Your task to perform on an android device: open app "Google Docs" (install if not already installed) Image 0: 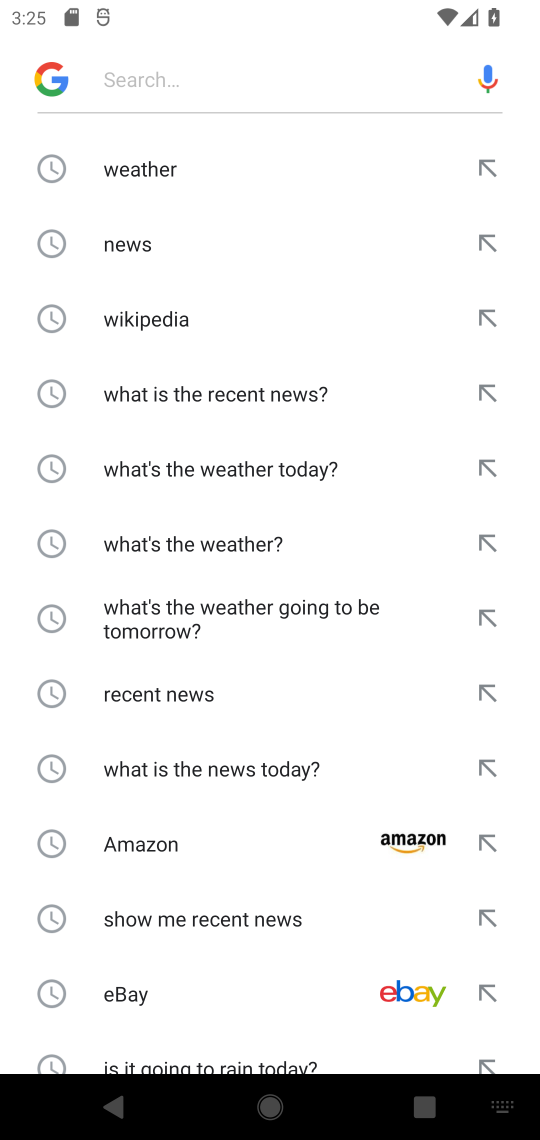
Step 0: press home button
Your task to perform on an android device: open app "Google Docs" (install if not already installed) Image 1: 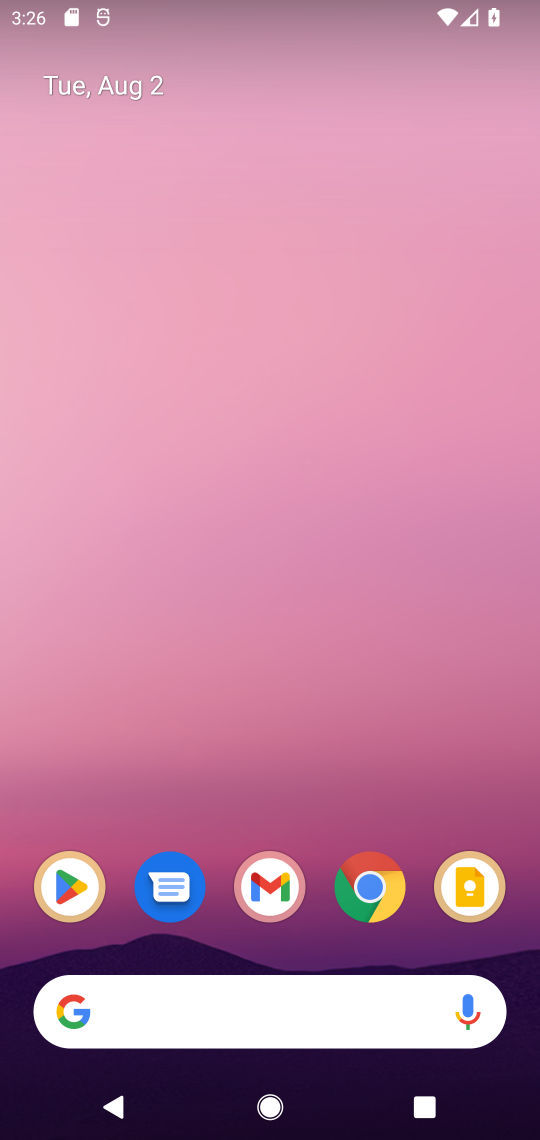
Step 1: click (46, 888)
Your task to perform on an android device: open app "Google Docs" (install if not already installed) Image 2: 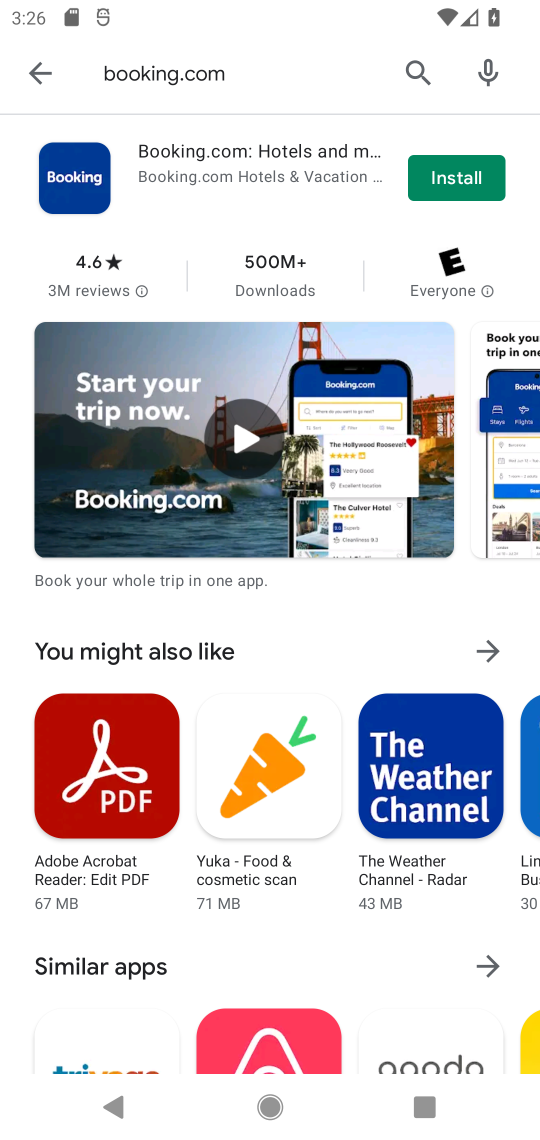
Step 2: click (43, 70)
Your task to perform on an android device: open app "Google Docs" (install if not already installed) Image 3: 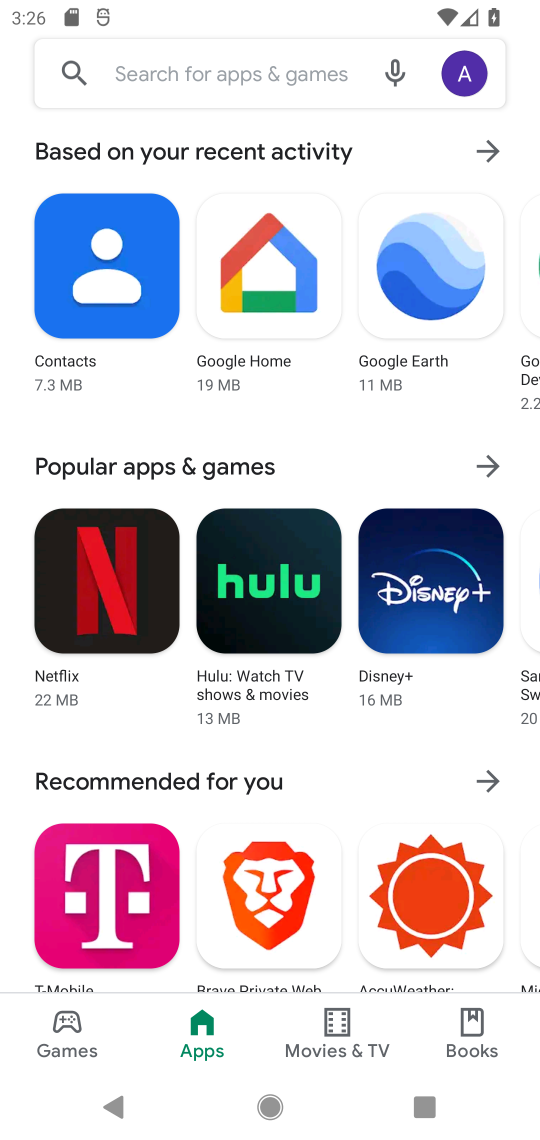
Step 3: click (154, 80)
Your task to perform on an android device: open app "Google Docs" (install if not already installed) Image 4: 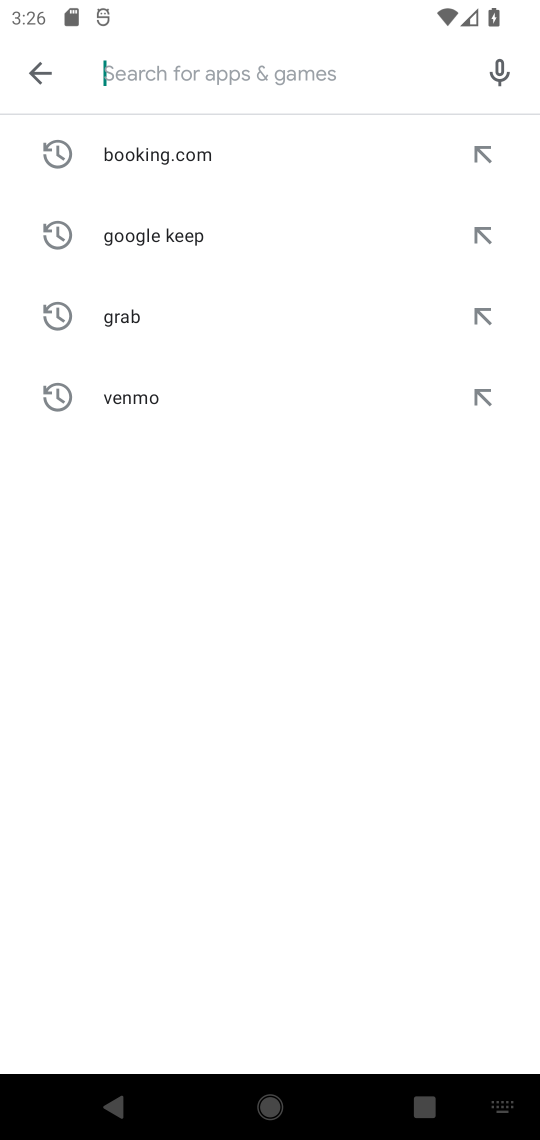
Step 4: type "Google Docs"
Your task to perform on an android device: open app "Google Docs" (install if not already installed) Image 5: 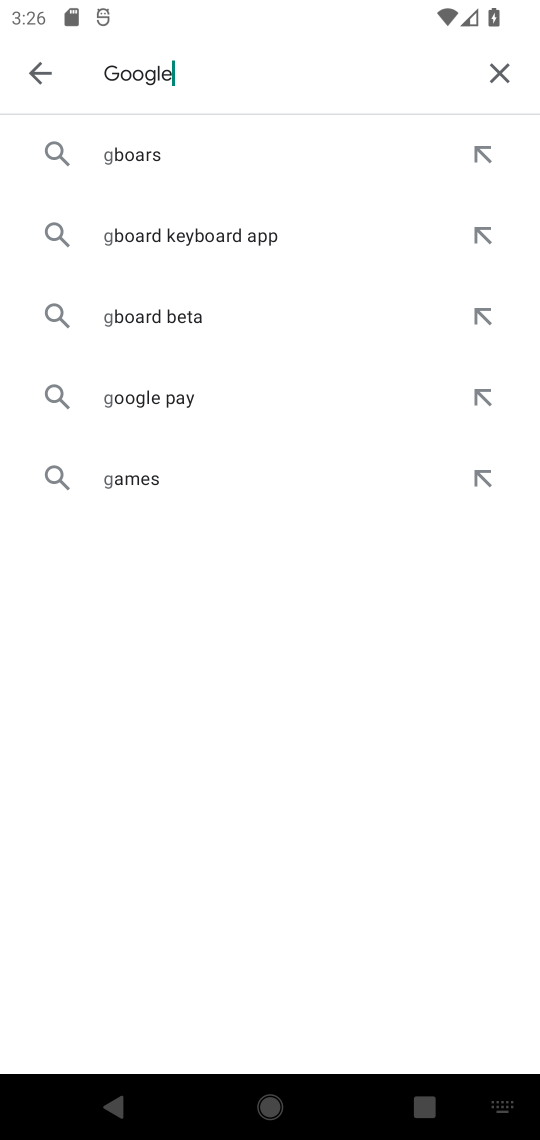
Step 5: type ""
Your task to perform on an android device: open app "Google Docs" (install if not already installed) Image 6: 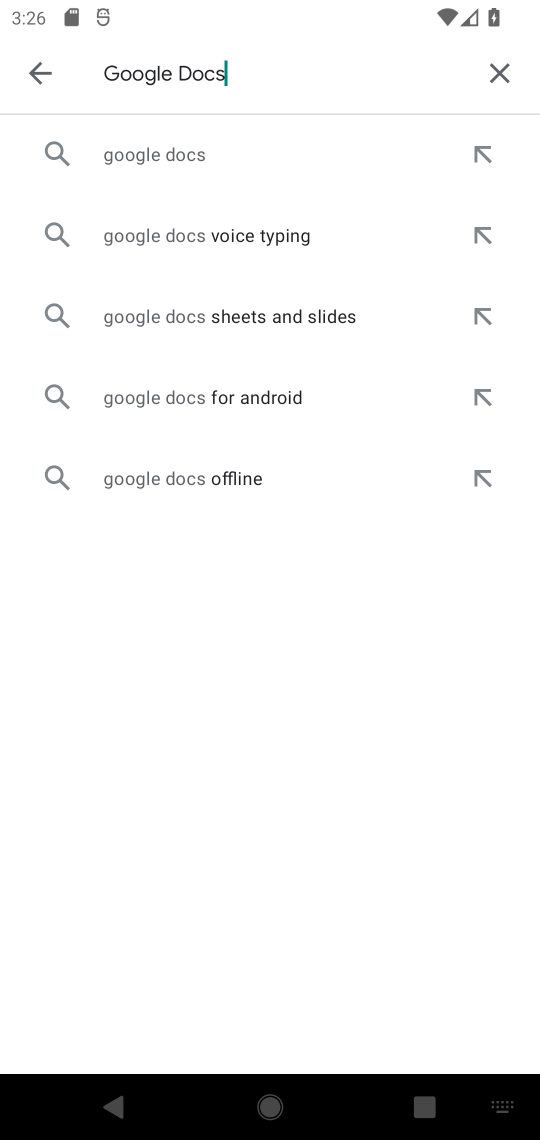
Step 6: click (175, 153)
Your task to perform on an android device: open app "Google Docs" (install if not already installed) Image 7: 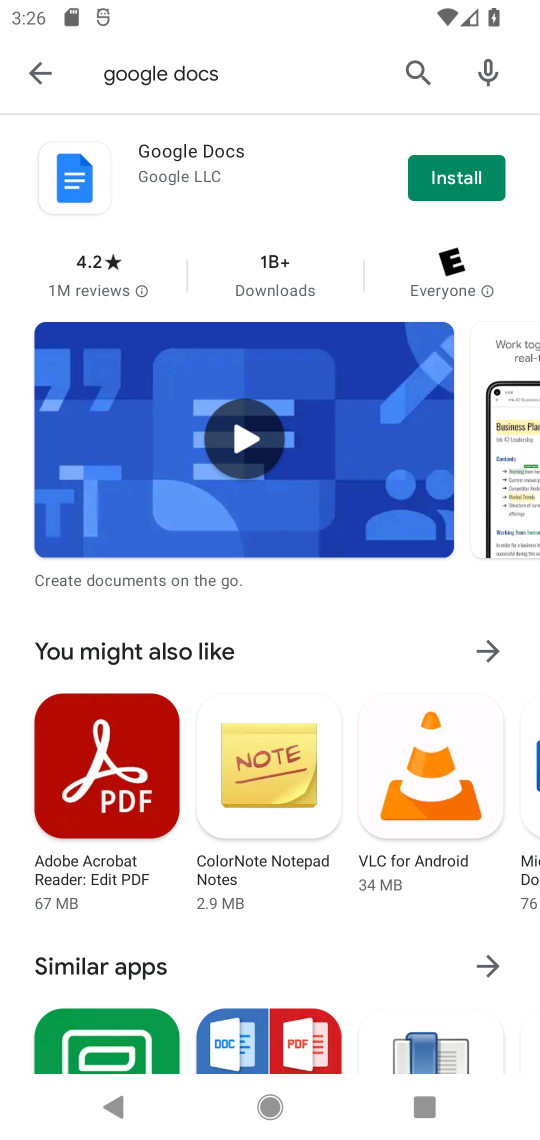
Step 7: click (438, 178)
Your task to perform on an android device: open app "Google Docs" (install if not already installed) Image 8: 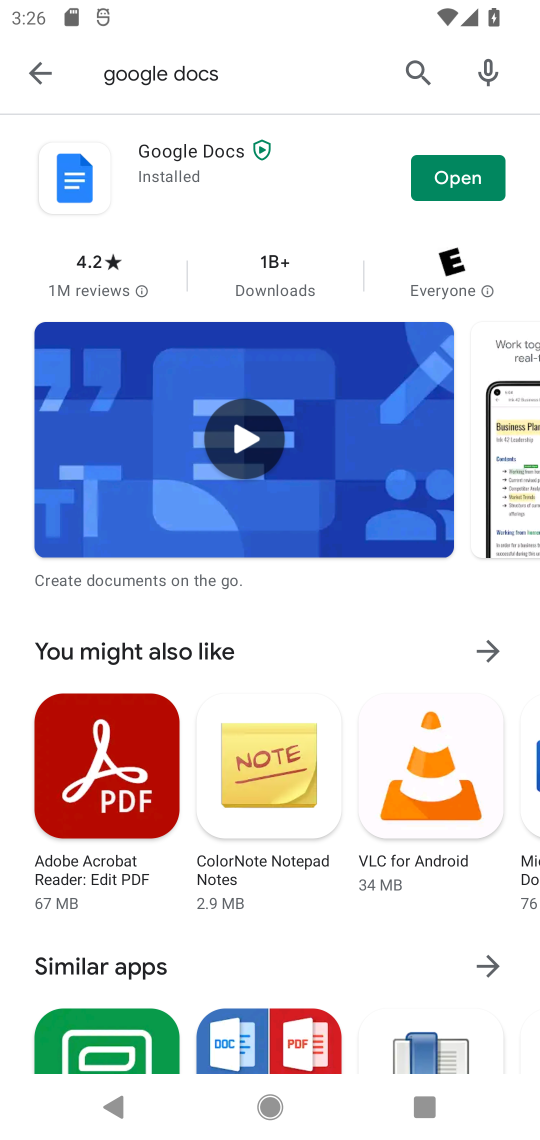
Step 8: task complete